Your task to perform on an android device: toggle sleep mode Image 0: 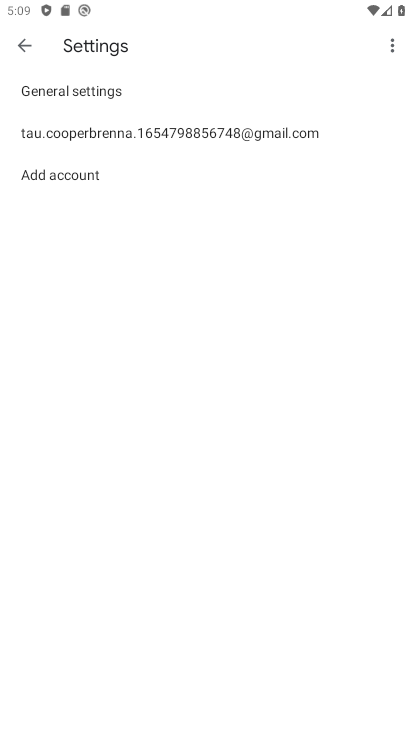
Step 0: press home button
Your task to perform on an android device: toggle sleep mode Image 1: 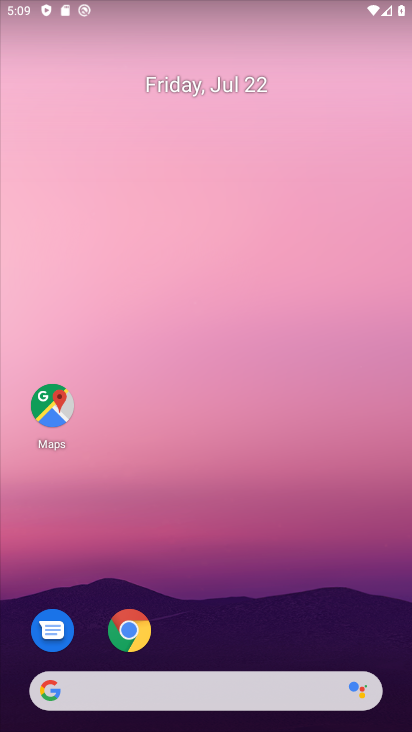
Step 1: drag from (180, 638) to (188, 182)
Your task to perform on an android device: toggle sleep mode Image 2: 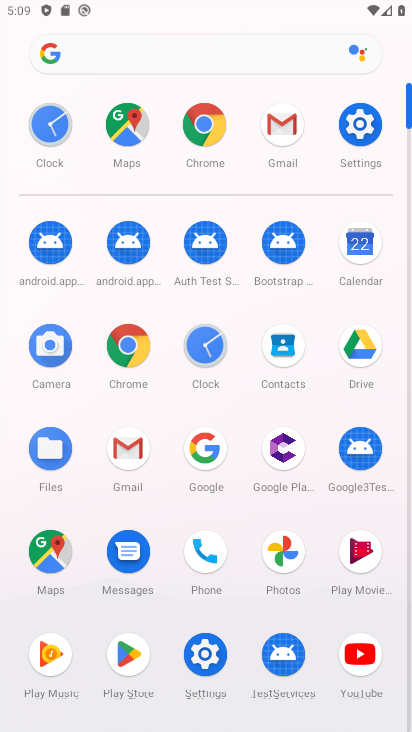
Step 2: click (226, 461)
Your task to perform on an android device: toggle sleep mode Image 3: 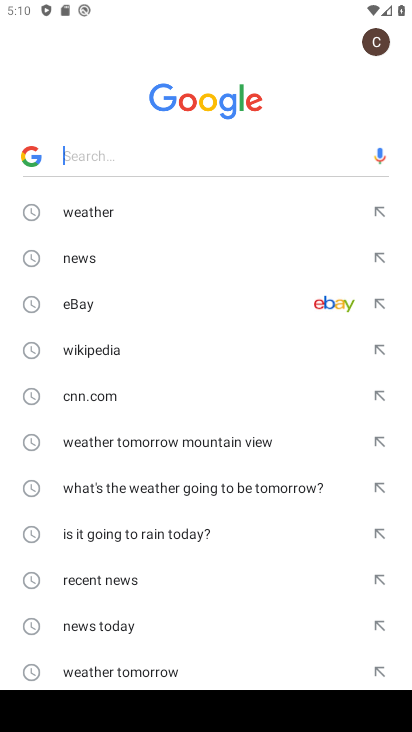
Step 3: press back button
Your task to perform on an android device: toggle sleep mode Image 4: 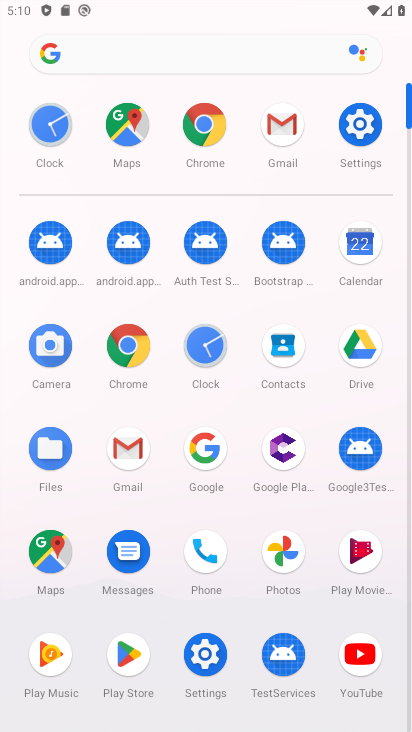
Step 4: click (363, 141)
Your task to perform on an android device: toggle sleep mode Image 5: 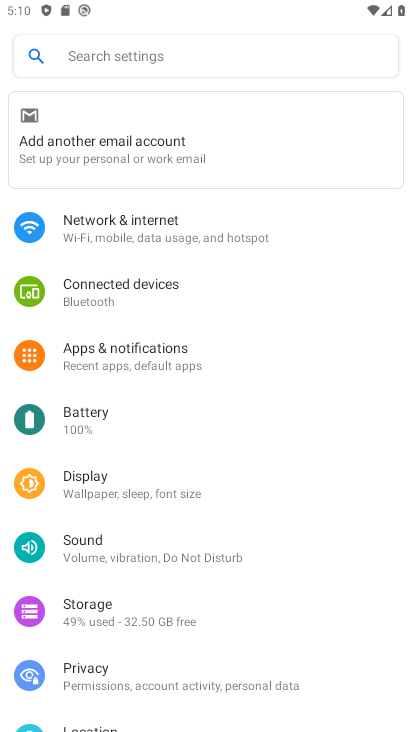
Step 5: task complete